Your task to perform on an android device: View the shopping cart on bestbuy.com. Add "bose soundlink" to the cart on bestbuy.com, then select checkout. Image 0: 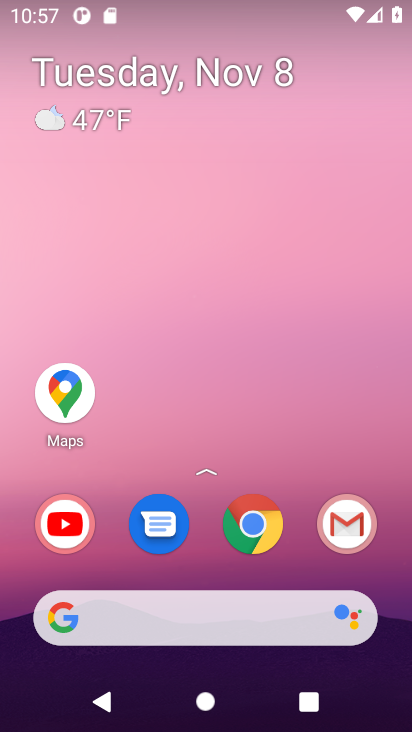
Step 0: click (260, 530)
Your task to perform on an android device: View the shopping cart on bestbuy.com. Add "bose soundlink" to the cart on bestbuy.com, then select checkout. Image 1: 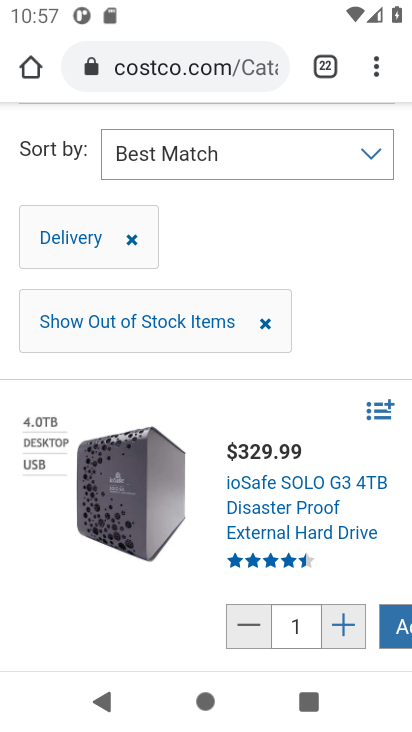
Step 1: click (232, 75)
Your task to perform on an android device: View the shopping cart on bestbuy.com. Add "bose soundlink" to the cart on bestbuy.com, then select checkout. Image 2: 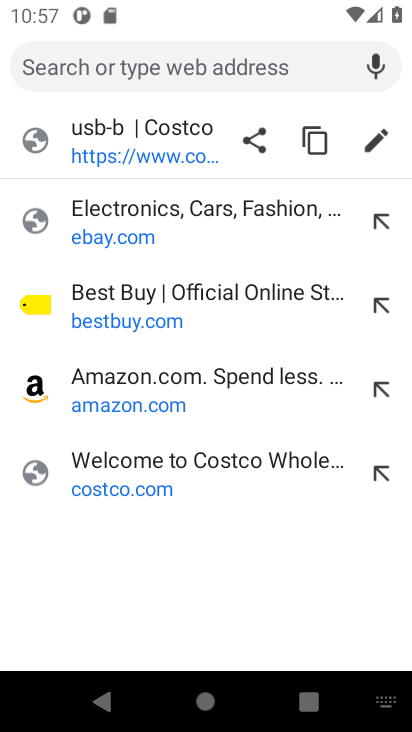
Step 2: click (100, 308)
Your task to perform on an android device: View the shopping cart on bestbuy.com. Add "bose soundlink" to the cart on bestbuy.com, then select checkout. Image 3: 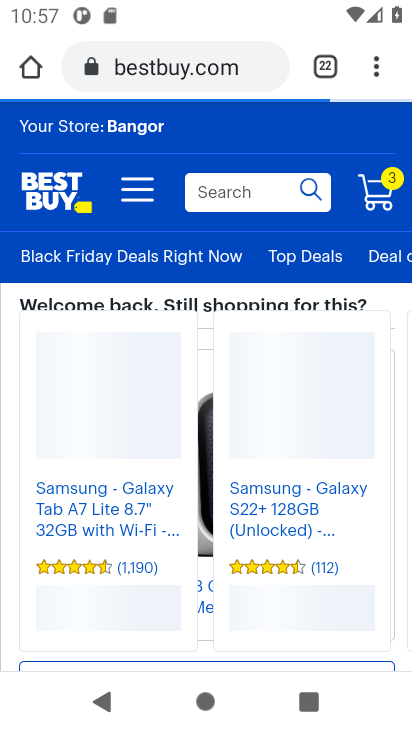
Step 3: click (369, 191)
Your task to perform on an android device: View the shopping cart on bestbuy.com. Add "bose soundlink" to the cart on bestbuy.com, then select checkout. Image 4: 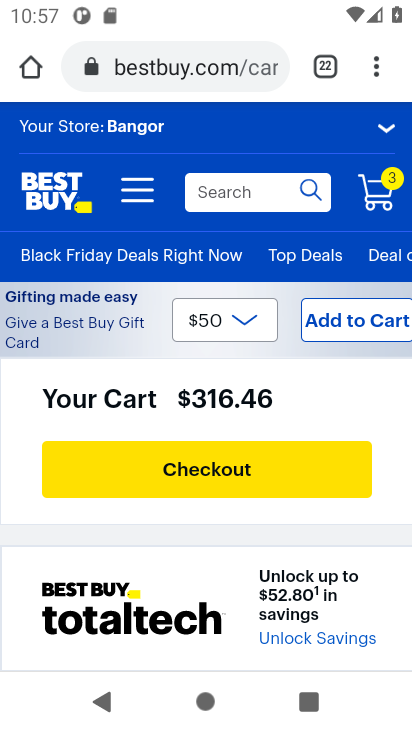
Step 4: drag from (352, 416) to (362, 213)
Your task to perform on an android device: View the shopping cart on bestbuy.com. Add "bose soundlink" to the cart on bestbuy.com, then select checkout. Image 5: 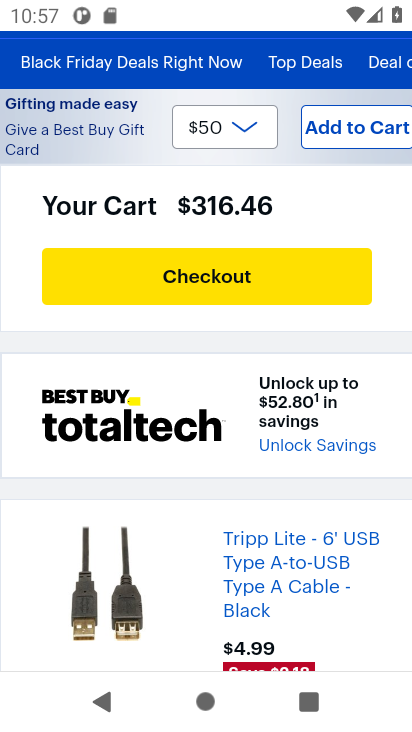
Step 5: drag from (305, 354) to (259, 679)
Your task to perform on an android device: View the shopping cart on bestbuy.com. Add "bose soundlink" to the cart on bestbuy.com, then select checkout. Image 6: 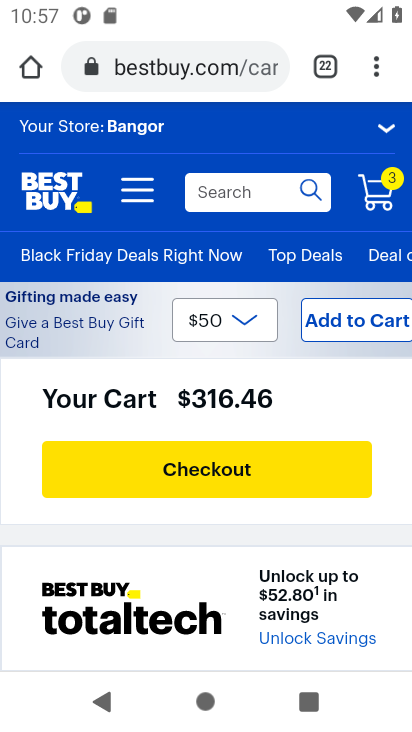
Step 6: click (238, 193)
Your task to perform on an android device: View the shopping cart on bestbuy.com. Add "bose soundlink" to the cart on bestbuy.com, then select checkout. Image 7: 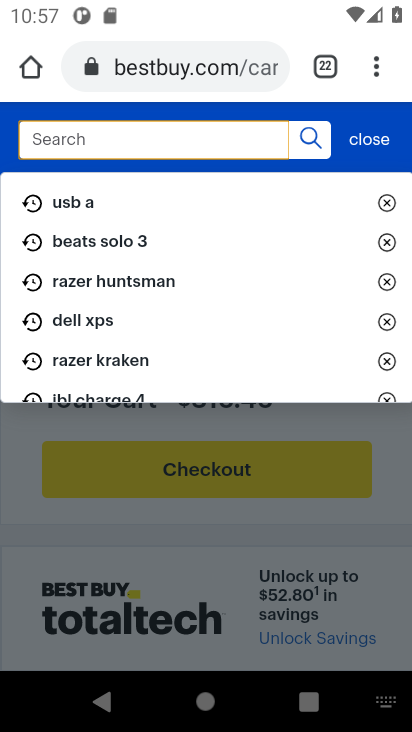
Step 7: type "bose soundlink"
Your task to perform on an android device: View the shopping cart on bestbuy.com. Add "bose soundlink" to the cart on bestbuy.com, then select checkout. Image 8: 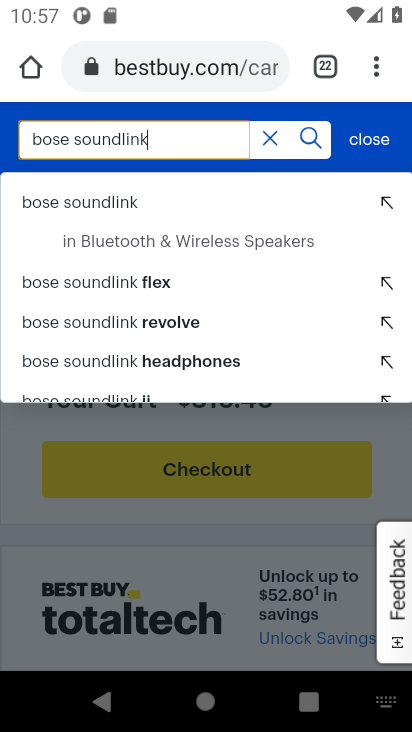
Step 8: click (108, 209)
Your task to perform on an android device: View the shopping cart on bestbuy.com. Add "bose soundlink" to the cart on bestbuy.com, then select checkout. Image 9: 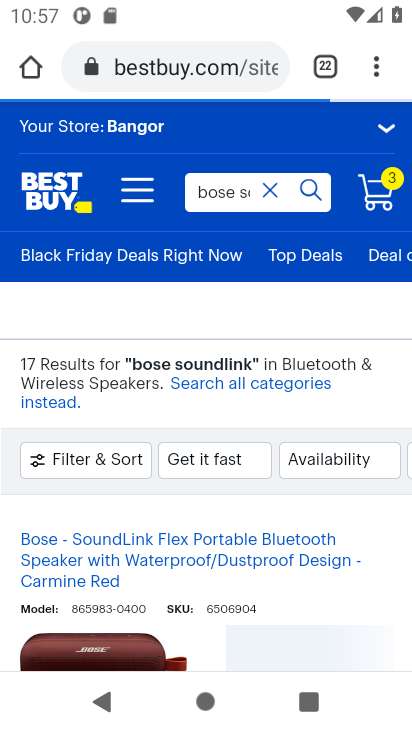
Step 9: drag from (162, 572) to (191, 395)
Your task to perform on an android device: View the shopping cart on bestbuy.com. Add "bose soundlink" to the cart on bestbuy.com, then select checkout. Image 10: 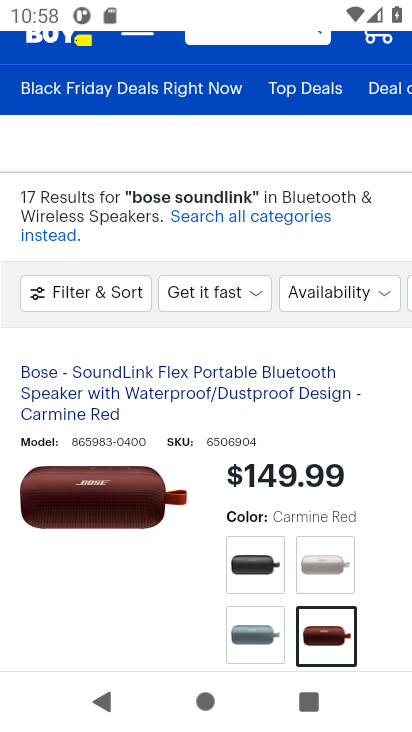
Step 10: drag from (140, 512) to (149, 334)
Your task to perform on an android device: View the shopping cart on bestbuy.com. Add "bose soundlink" to the cart on bestbuy.com, then select checkout. Image 11: 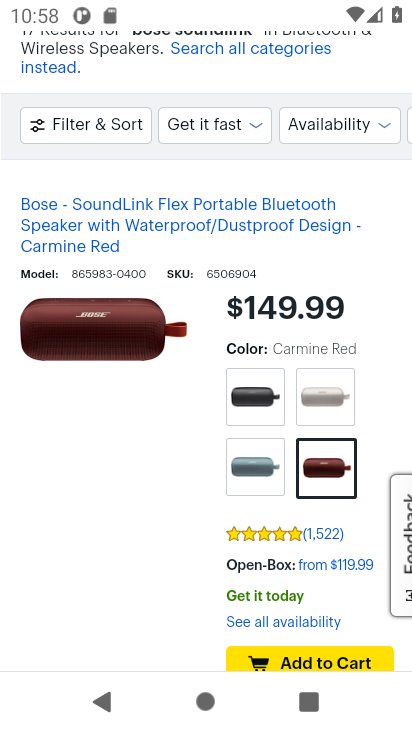
Step 11: drag from (155, 499) to (172, 336)
Your task to perform on an android device: View the shopping cart on bestbuy.com. Add "bose soundlink" to the cart on bestbuy.com, then select checkout. Image 12: 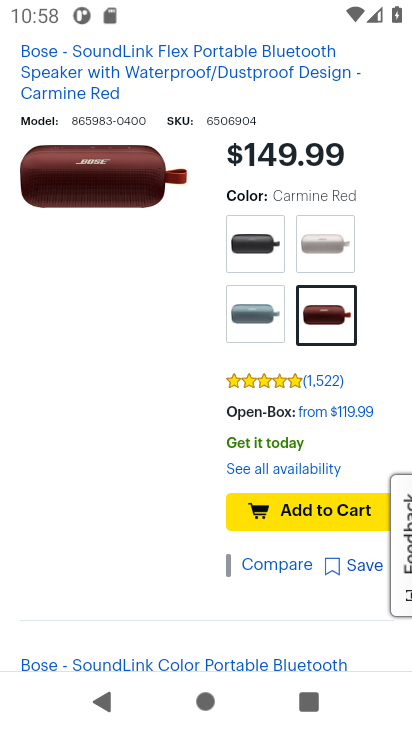
Step 12: click (293, 508)
Your task to perform on an android device: View the shopping cart on bestbuy.com. Add "bose soundlink" to the cart on bestbuy.com, then select checkout. Image 13: 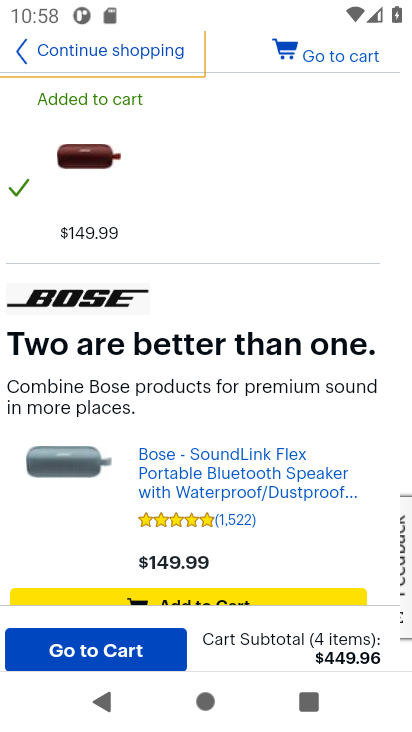
Step 13: click (323, 55)
Your task to perform on an android device: View the shopping cart on bestbuy.com. Add "bose soundlink" to the cart on bestbuy.com, then select checkout. Image 14: 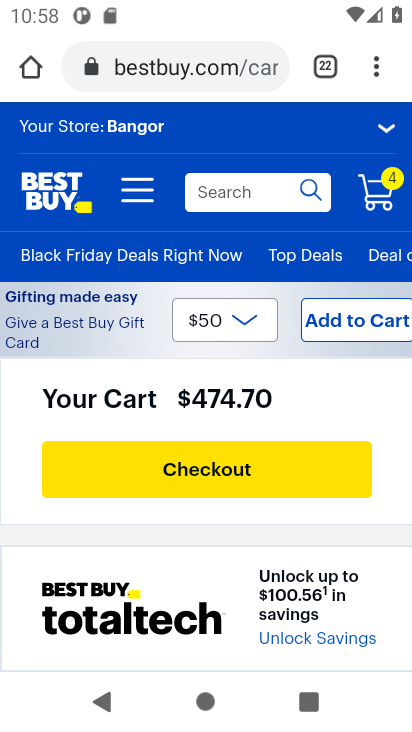
Step 14: click (209, 483)
Your task to perform on an android device: View the shopping cart on bestbuy.com. Add "bose soundlink" to the cart on bestbuy.com, then select checkout. Image 15: 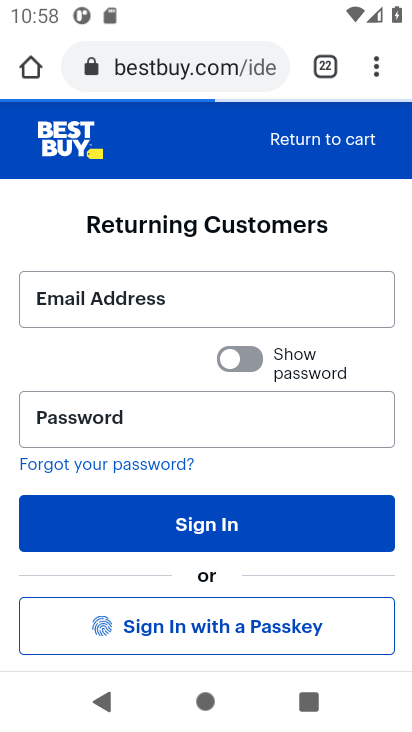
Step 15: task complete